Your task to perform on an android device: snooze an email in the gmail app Image 0: 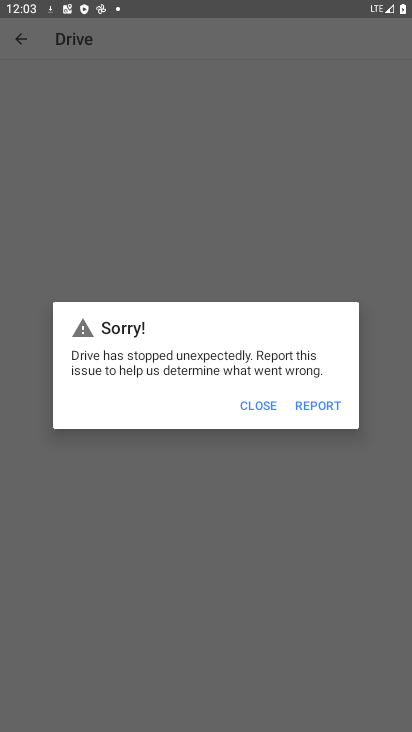
Step 0: press home button
Your task to perform on an android device: snooze an email in the gmail app Image 1: 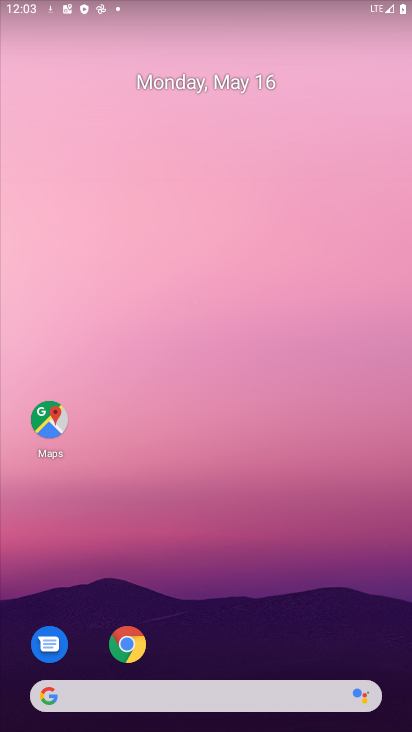
Step 1: drag from (176, 703) to (350, 237)
Your task to perform on an android device: snooze an email in the gmail app Image 2: 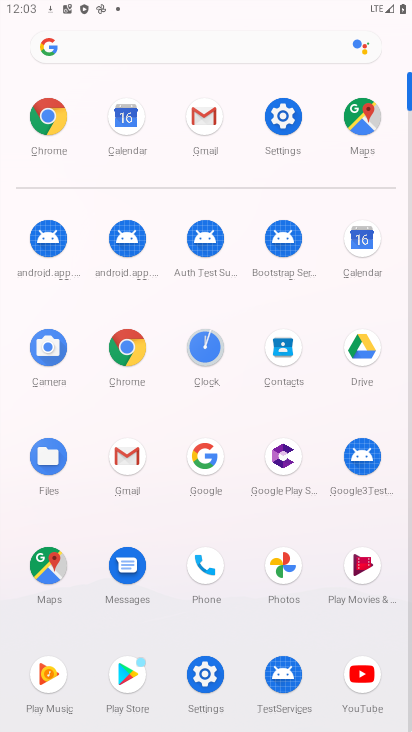
Step 2: click (119, 461)
Your task to perform on an android device: snooze an email in the gmail app Image 3: 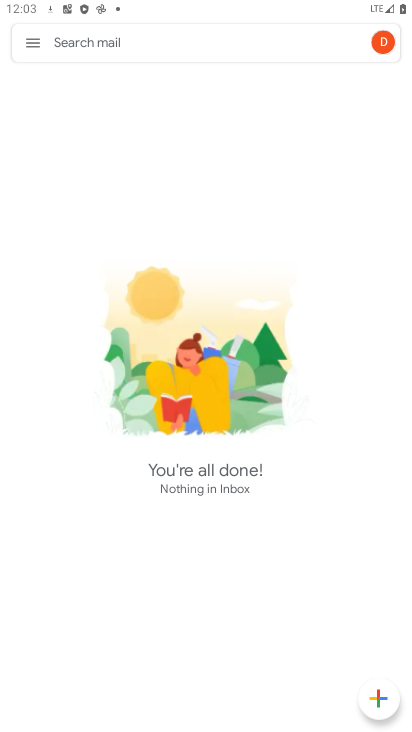
Step 3: click (36, 43)
Your task to perform on an android device: snooze an email in the gmail app Image 4: 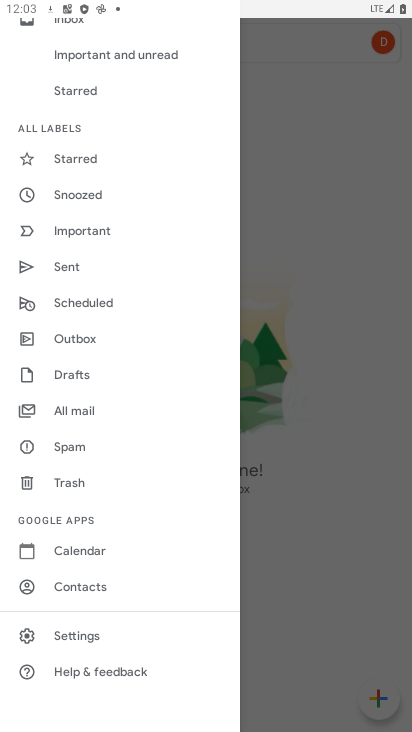
Step 4: click (89, 197)
Your task to perform on an android device: snooze an email in the gmail app Image 5: 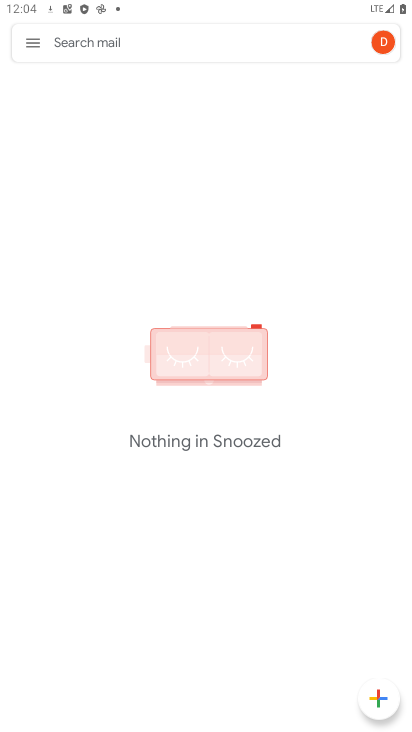
Step 5: task complete